Your task to perform on an android device: Go to wifi settings Image 0: 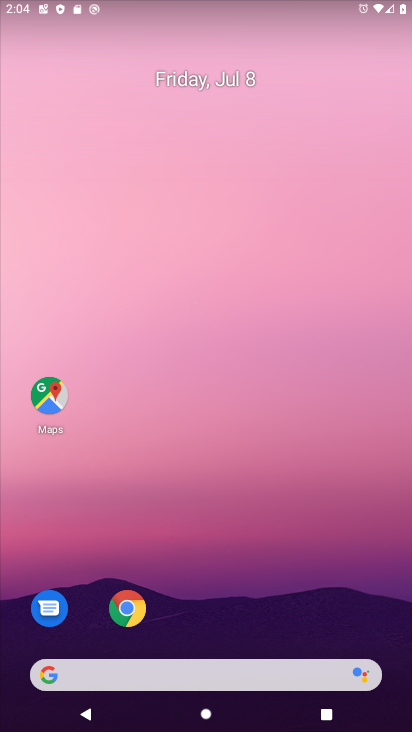
Step 0: click (193, 21)
Your task to perform on an android device: Go to wifi settings Image 1: 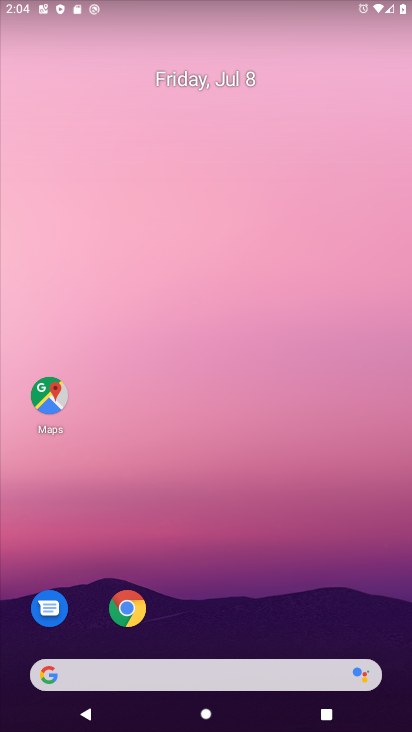
Step 1: drag from (193, 21) to (201, 510)
Your task to perform on an android device: Go to wifi settings Image 2: 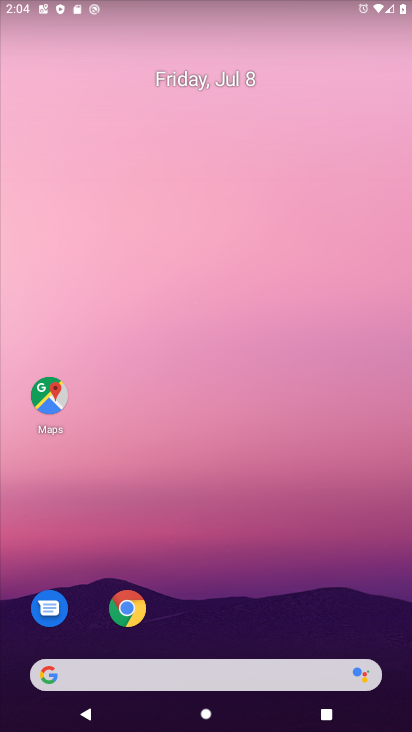
Step 2: drag from (169, 7) to (65, 601)
Your task to perform on an android device: Go to wifi settings Image 3: 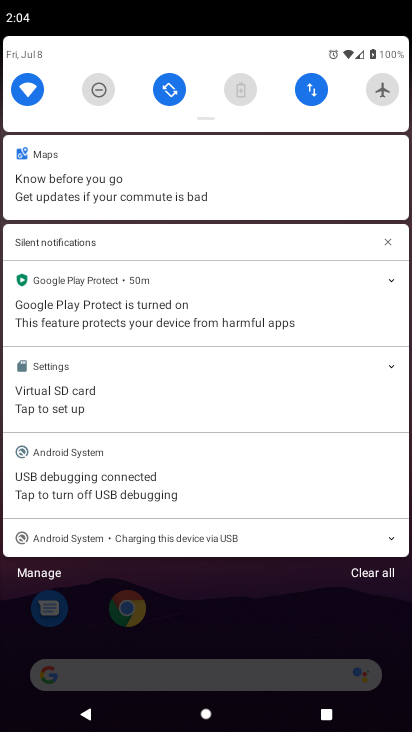
Step 3: click (31, 95)
Your task to perform on an android device: Go to wifi settings Image 4: 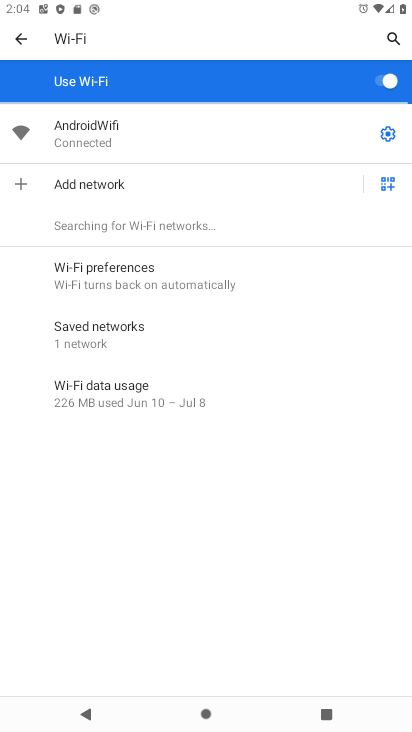
Step 4: task complete